Your task to perform on an android device: empty trash in the gmail app Image 0: 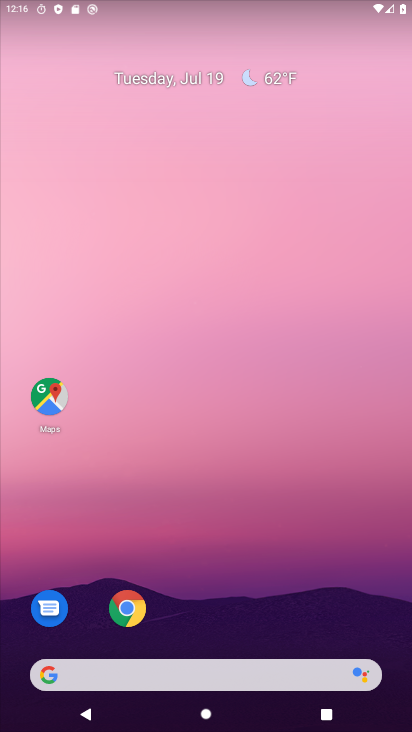
Step 0: drag from (210, 643) to (212, 2)
Your task to perform on an android device: empty trash in the gmail app Image 1: 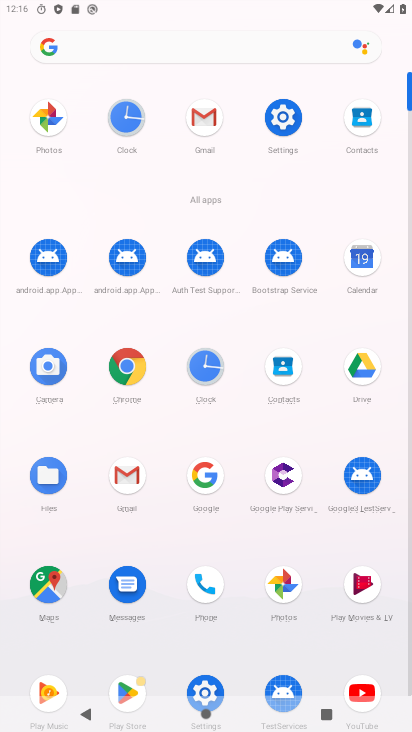
Step 1: click (201, 110)
Your task to perform on an android device: empty trash in the gmail app Image 2: 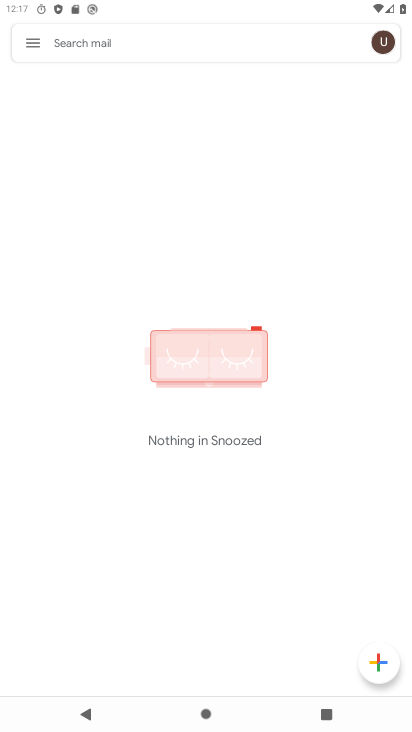
Step 2: click (30, 39)
Your task to perform on an android device: empty trash in the gmail app Image 3: 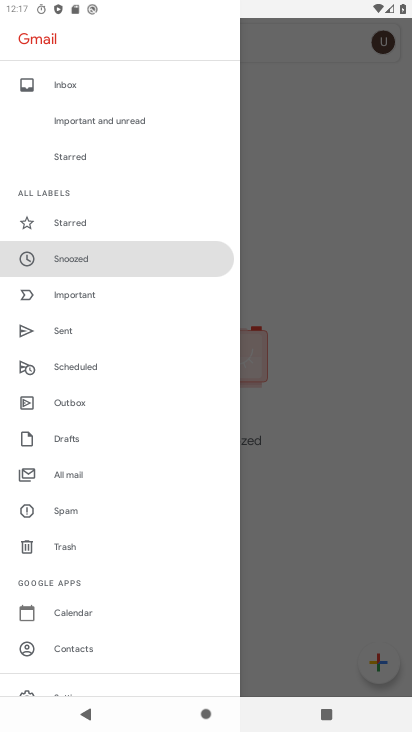
Step 3: click (45, 542)
Your task to perform on an android device: empty trash in the gmail app Image 4: 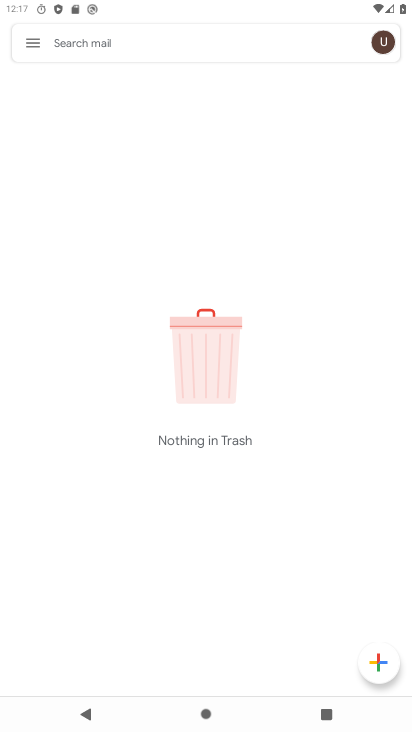
Step 4: task complete